Your task to perform on an android device: see tabs open on other devices in the chrome app Image 0: 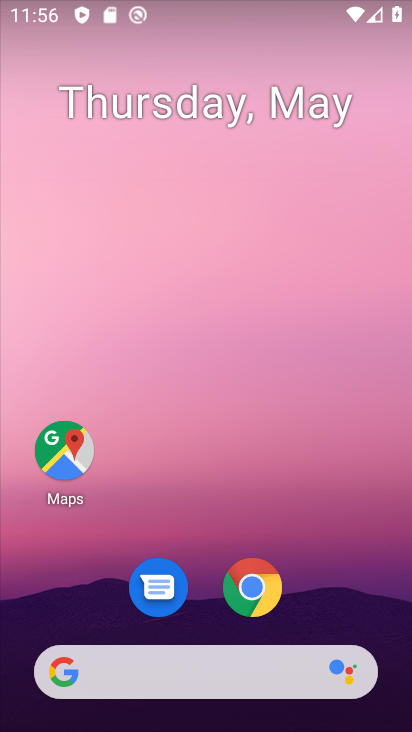
Step 0: click (267, 591)
Your task to perform on an android device: see tabs open on other devices in the chrome app Image 1: 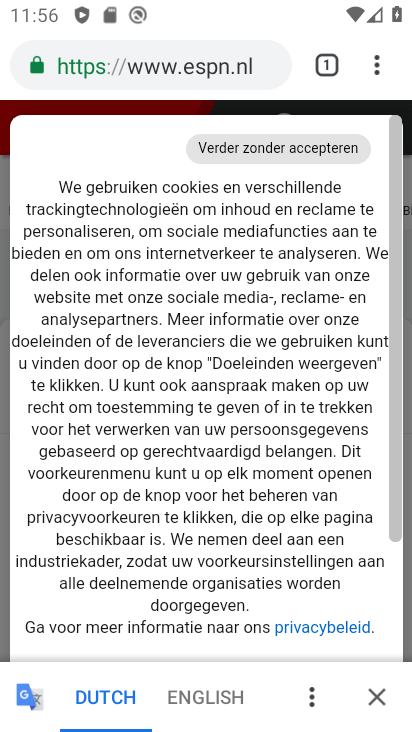
Step 1: task complete